Your task to perform on an android device: add a label to a message in the gmail app Image 0: 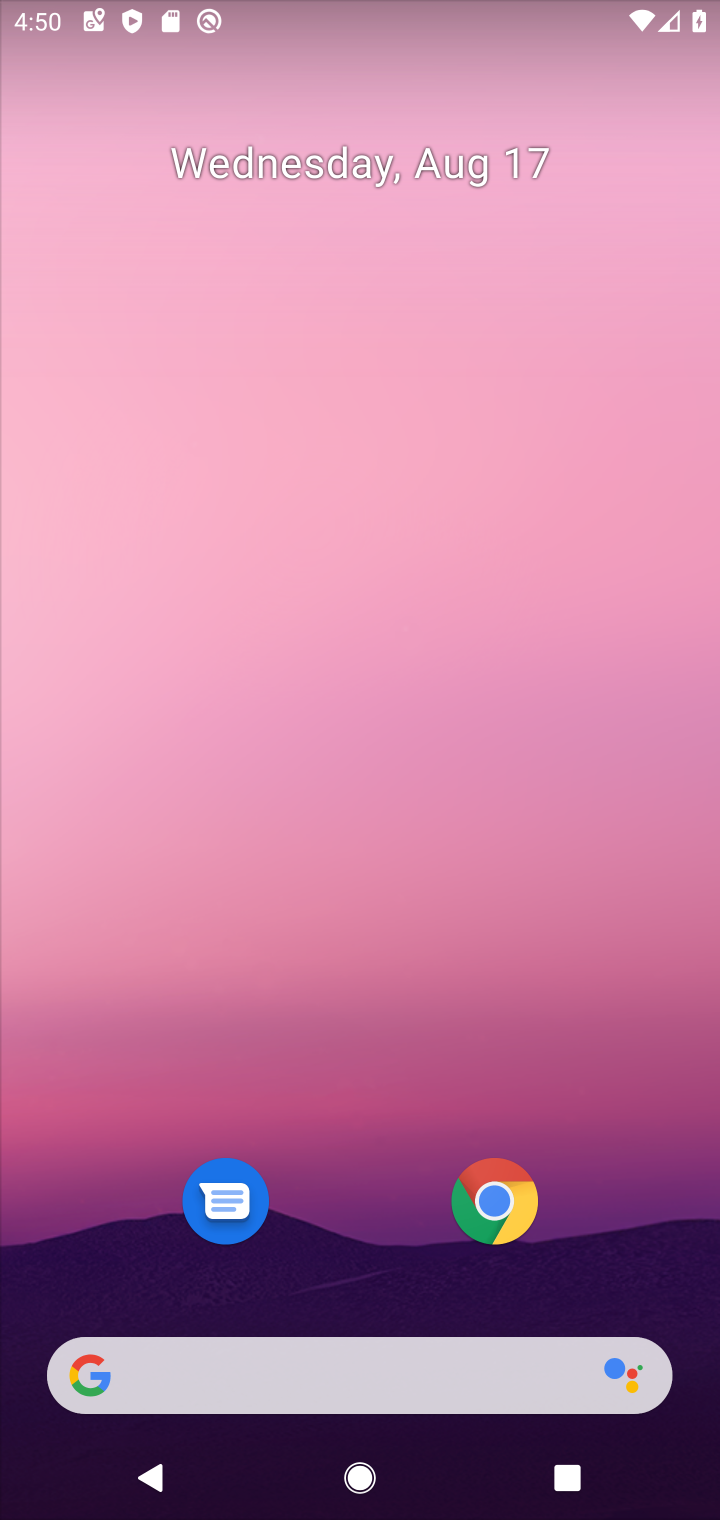
Step 0: drag from (322, 816) to (312, 140)
Your task to perform on an android device: add a label to a message in the gmail app Image 1: 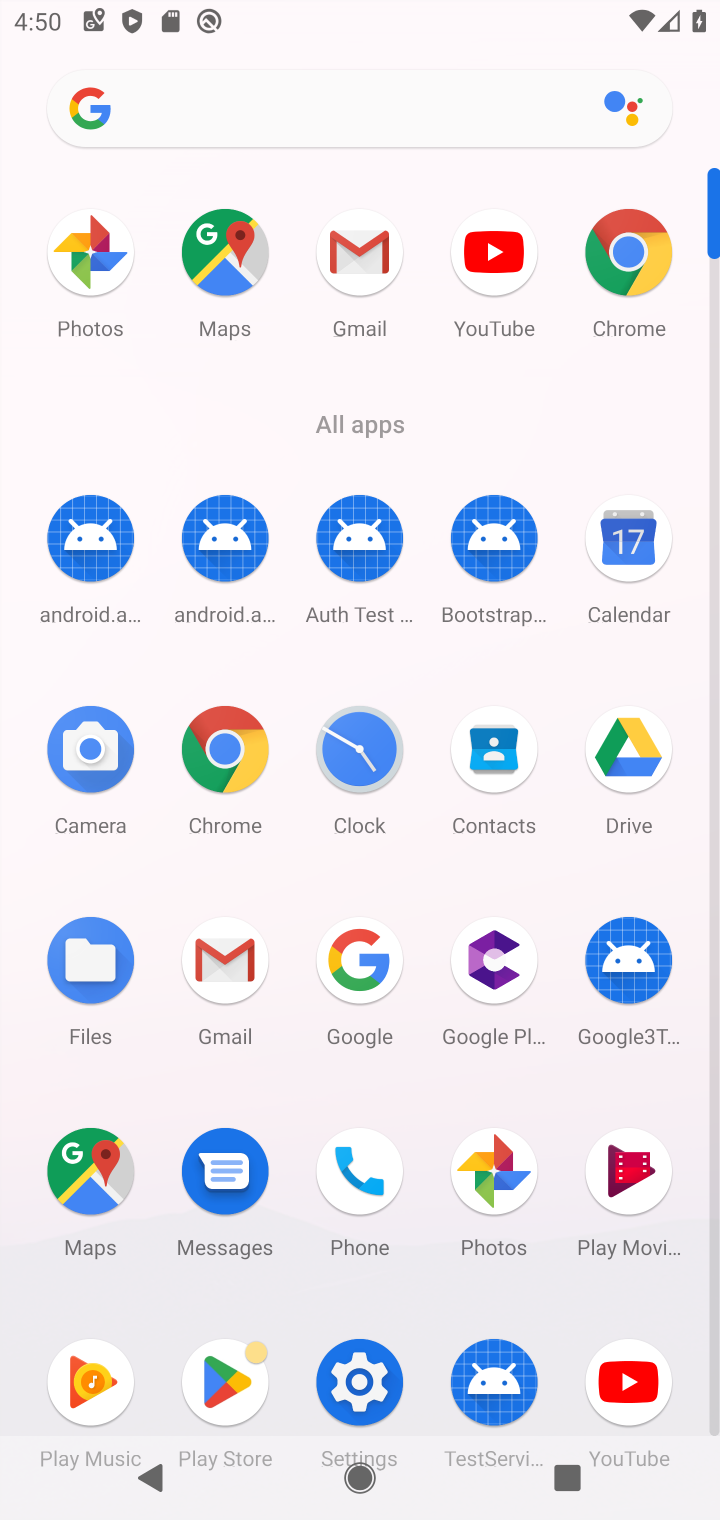
Step 1: click (331, 268)
Your task to perform on an android device: add a label to a message in the gmail app Image 2: 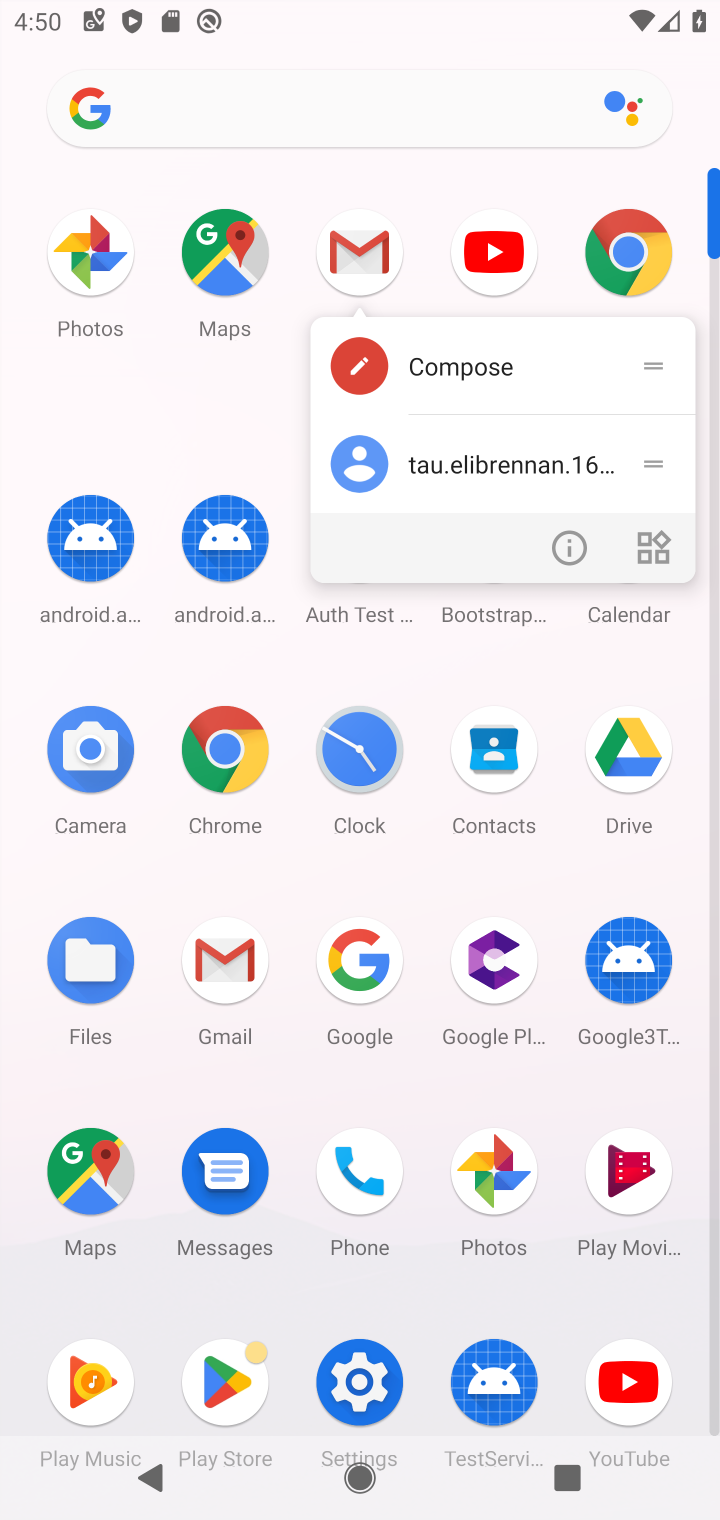
Step 2: click (364, 249)
Your task to perform on an android device: add a label to a message in the gmail app Image 3: 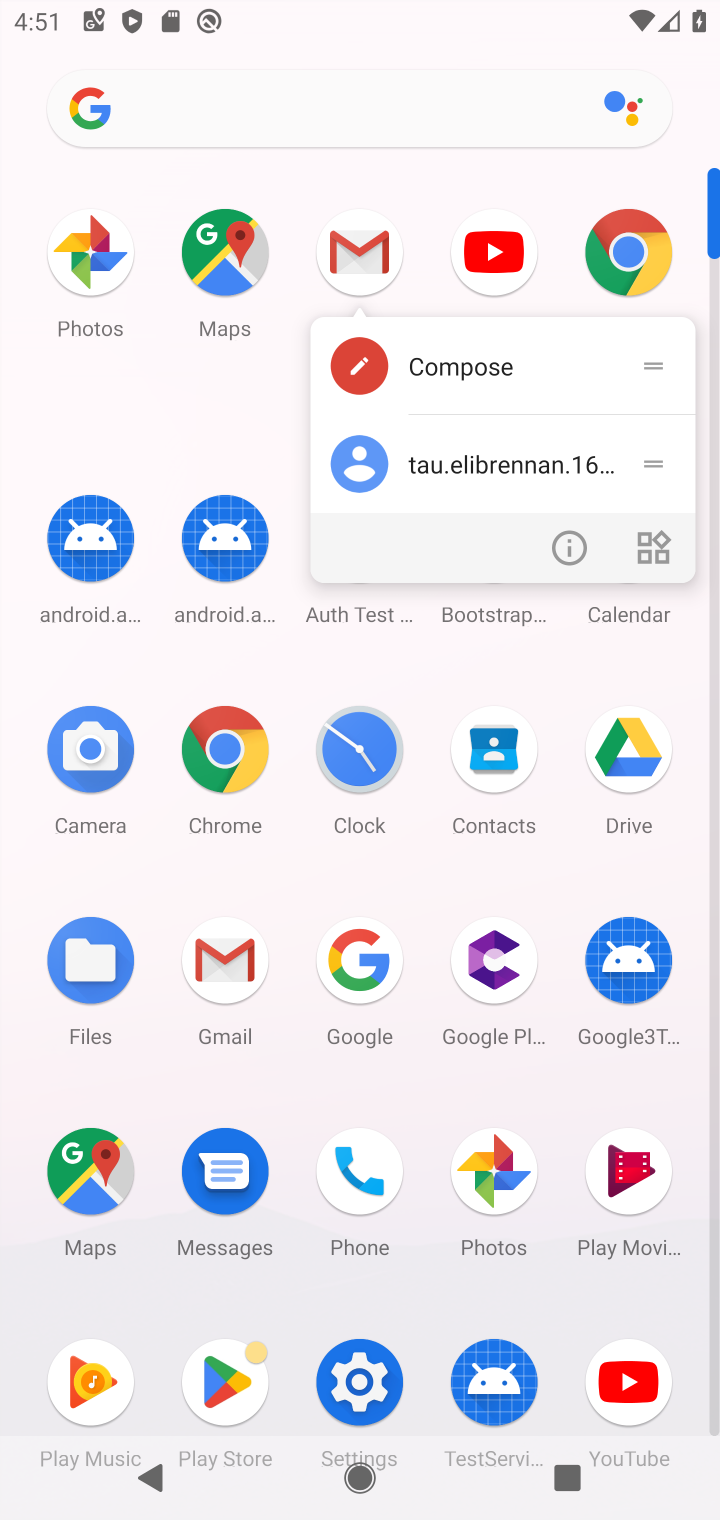
Step 3: click (353, 253)
Your task to perform on an android device: add a label to a message in the gmail app Image 4: 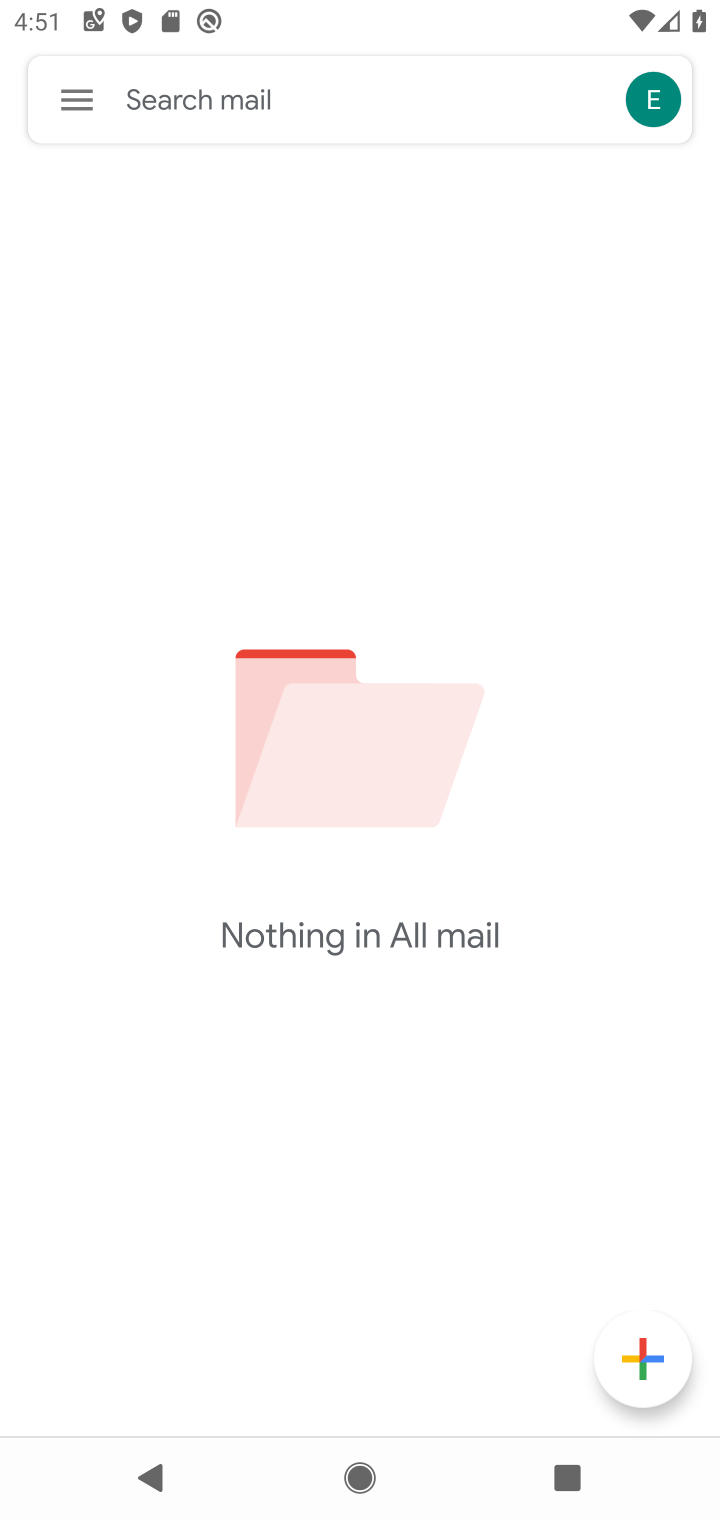
Step 4: click (71, 118)
Your task to perform on an android device: add a label to a message in the gmail app Image 5: 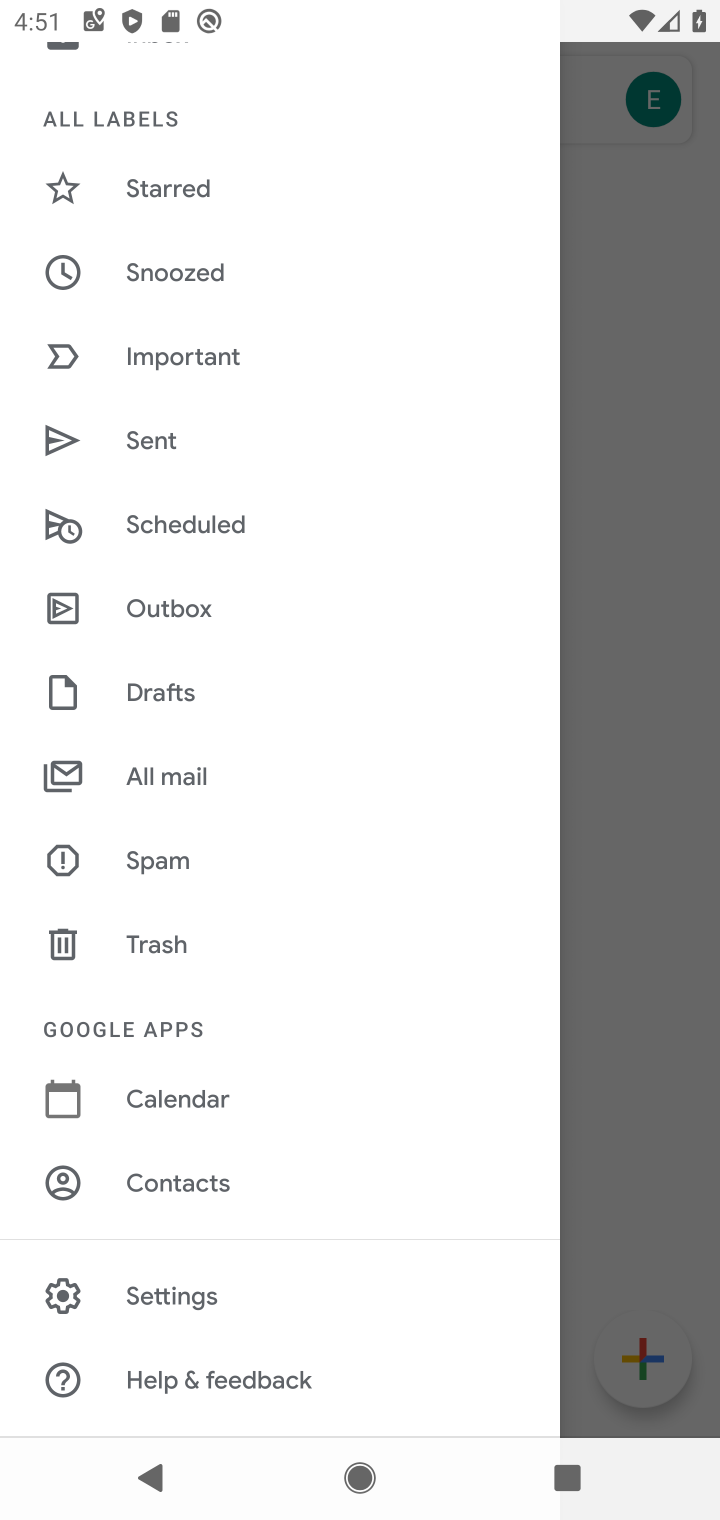
Step 5: drag from (372, 398) to (391, 1363)
Your task to perform on an android device: add a label to a message in the gmail app Image 6: 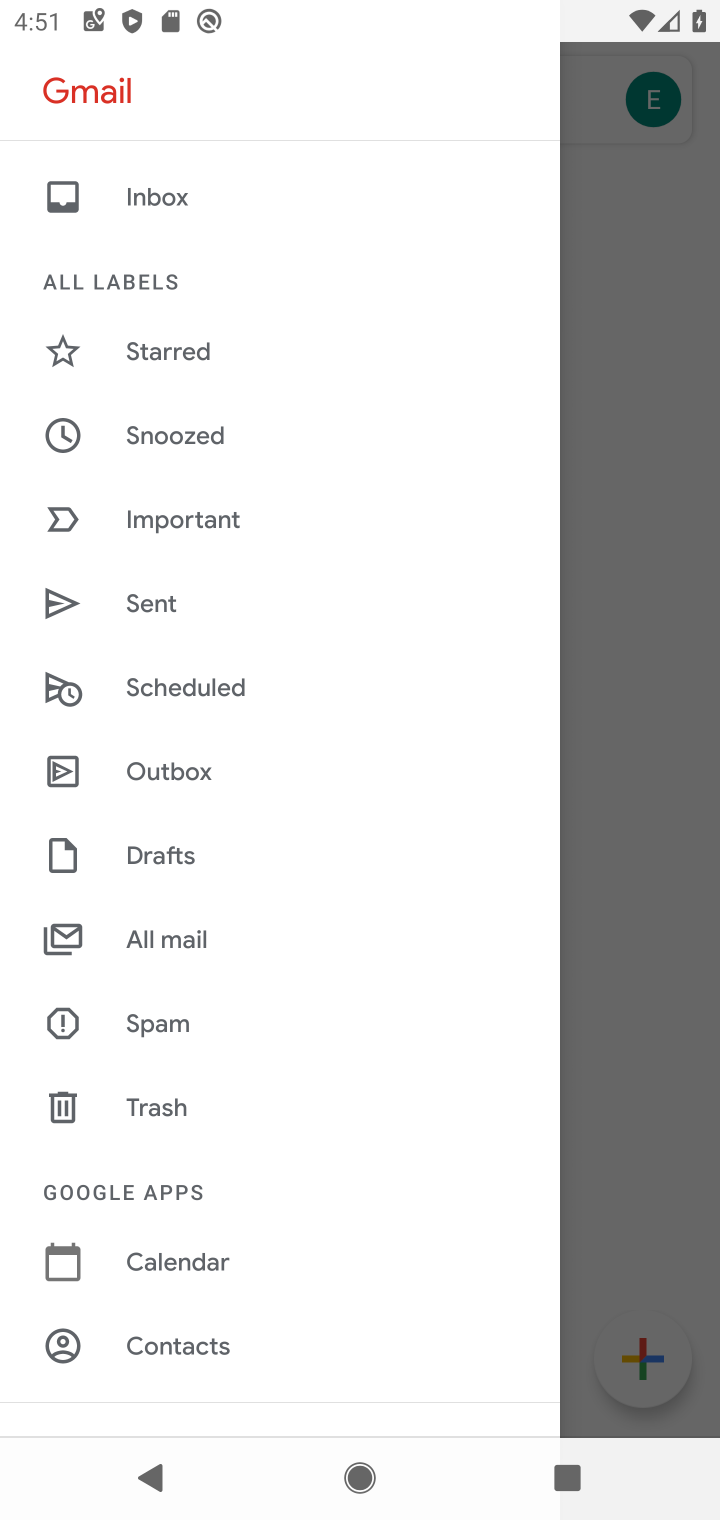
Step 6: drag from (372, 1214) to (417, 196)
Your task to perform on an android device: add a label to a message in the gmail app Image 7: 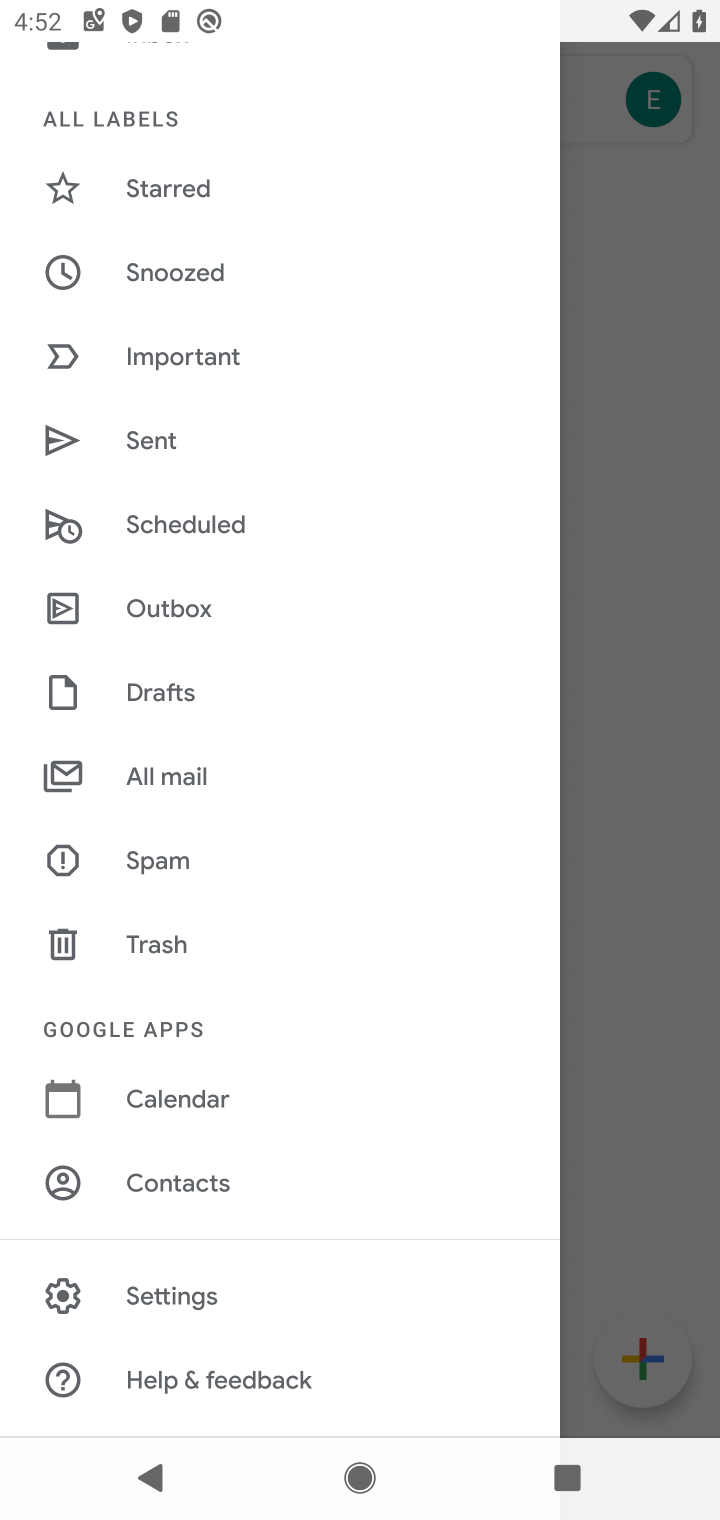
Step 7: click (143, 785)
Your task to perform on an android device: add a label to a message in the gmail app Image 8: 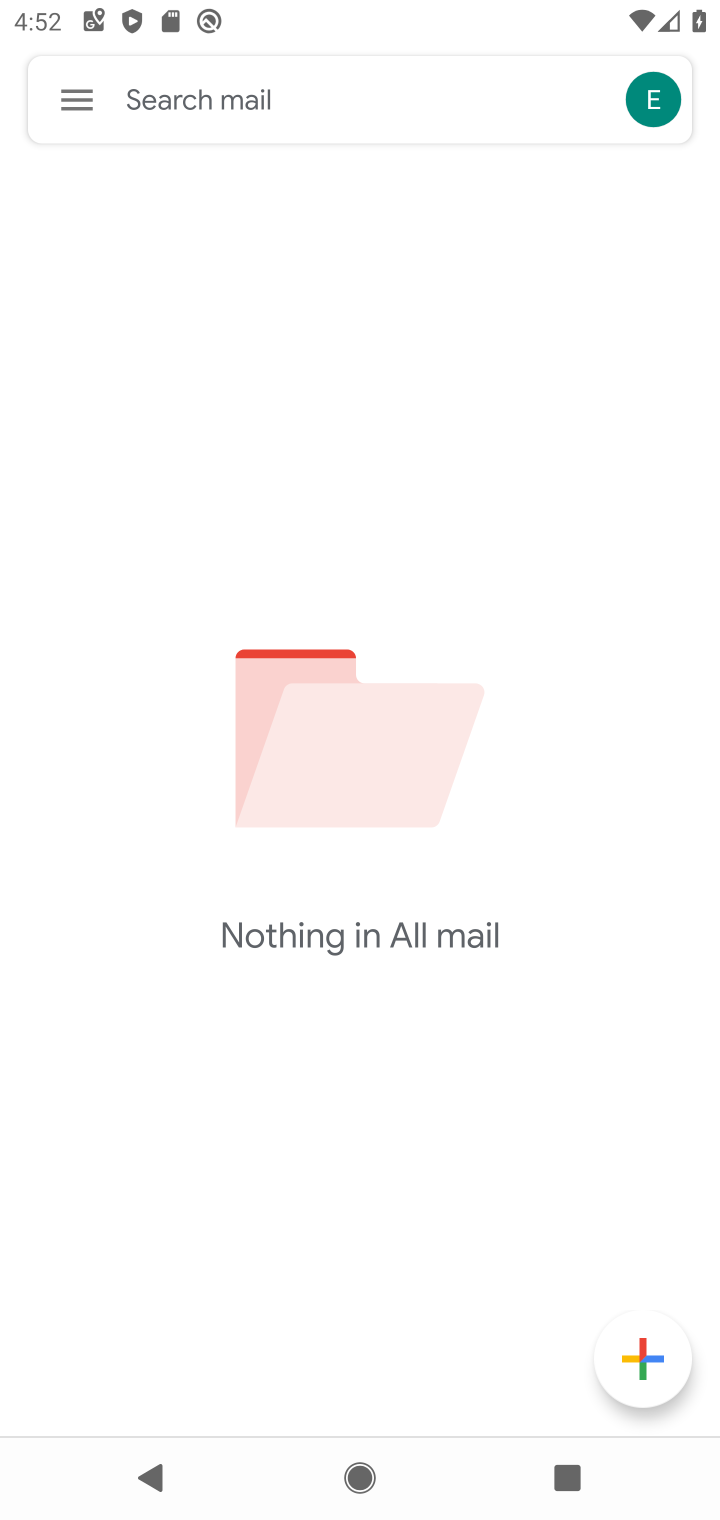
Step 8: task complete